Your task to perform on an android device: set the timer Image 0: 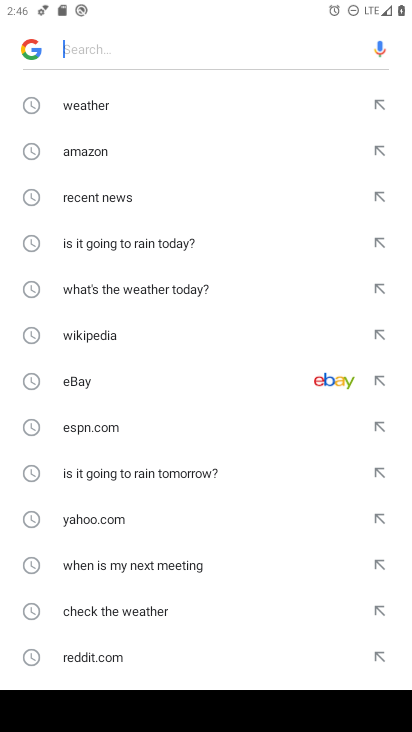
Step 0: press home button
Your task to perform on an android device: set the timer Image 1: 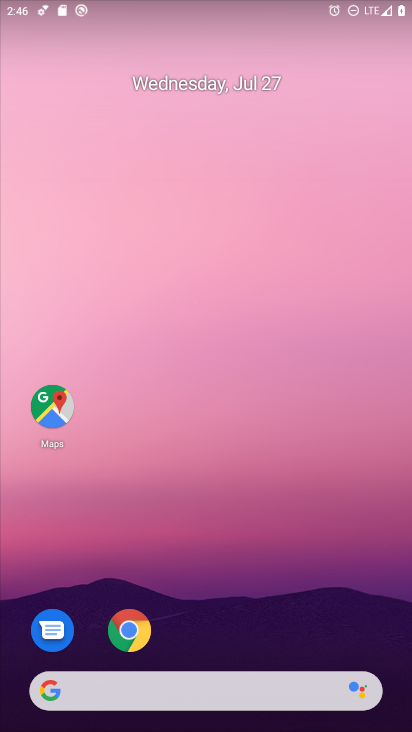
Step 1: drag from (381, 637) to (274, 83)
Your task to perform on an android device: set the timer Image 2: 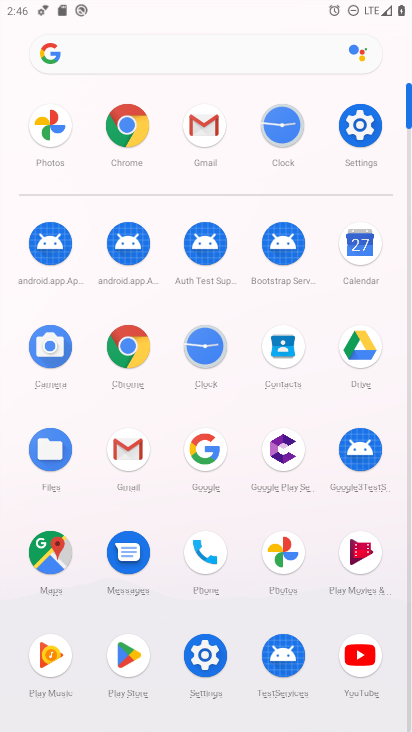
Step 2: click (207, 348)
Your task to perform on an android device: set the timer Image 3: 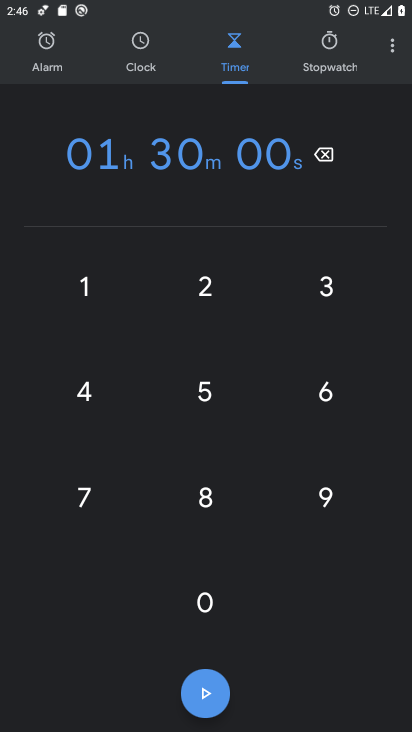
Step 3: task complete